Your task to perform on an android device: check the backup settings in the google photos Image 0: 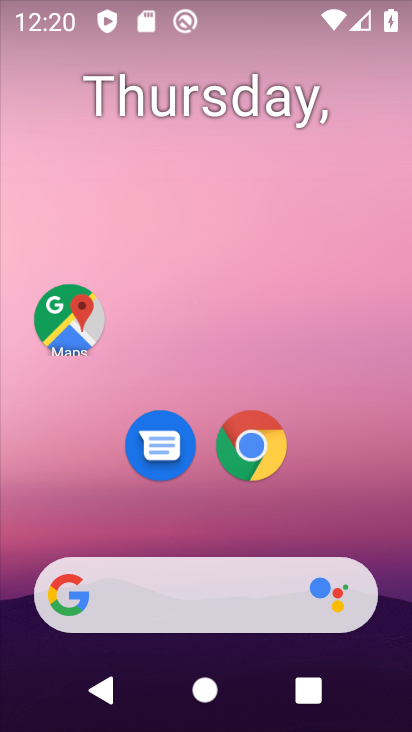
Step 0: drag from (358, 502) to (345, 124)
Your task to perform on an android device: check the backup settings in the google photos Image 1: 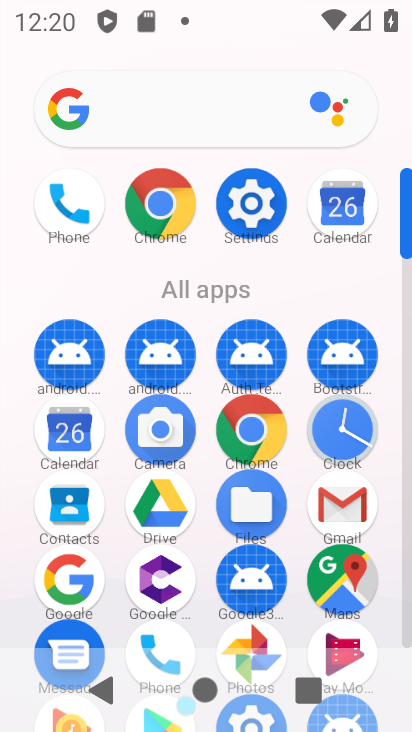
Step 1: click (256, 641)
Your task to perform on an android device: check the backup settings in the google photos Image 2: 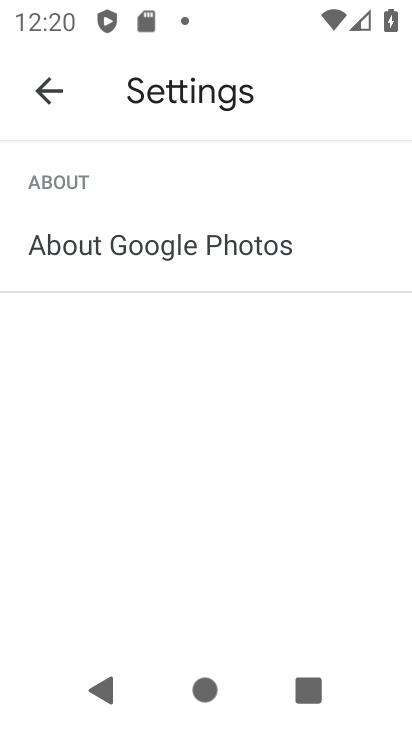
Step 2: click (54, 92)
Your task to perform on an android device: check the backup settings in the google photos Image 3: 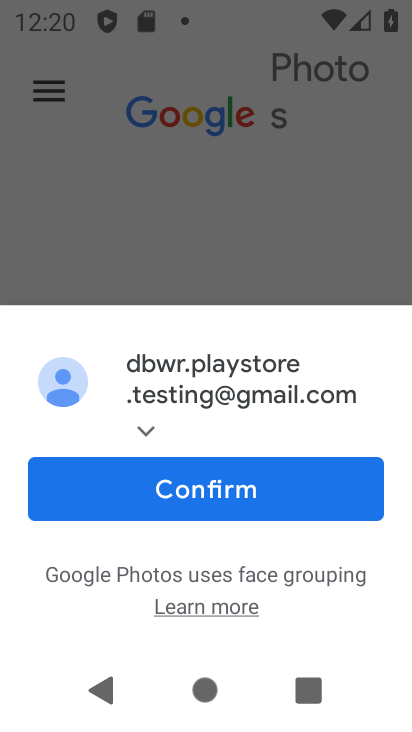
Step 3: click (71, 109)
Your task to perform on an android device: check the backup settings in the google photos Image 4: 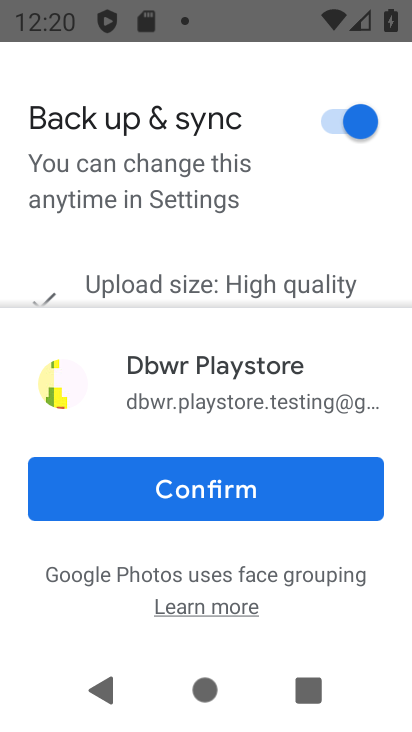
Step 4: click (202, 481)
Your task to perform on an android device: check the backup settings in the google photos Image 5: 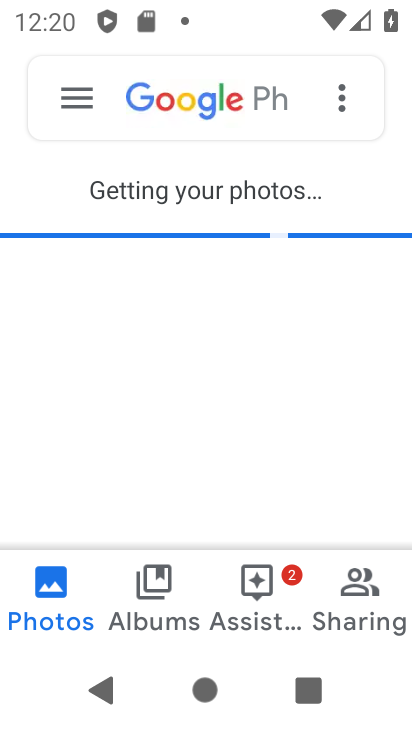
Step 5: click (74, 102)
Your task to perform on an android device: check the backup settings in the google photos Image 6: 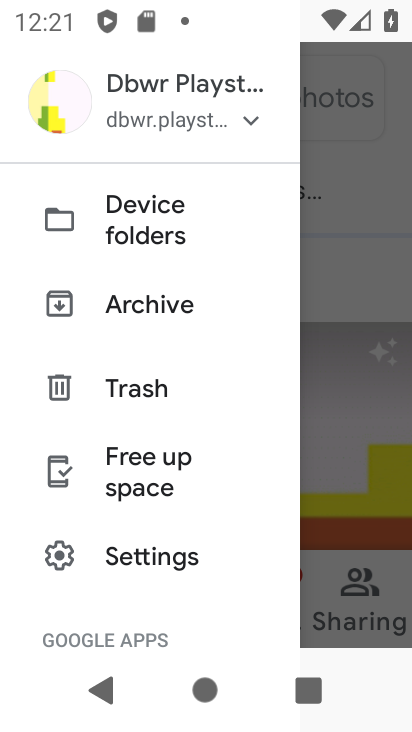
Step 6: click (165, 568)
Your task to perform on an android device: check the backup settings in the google photos Image 7: 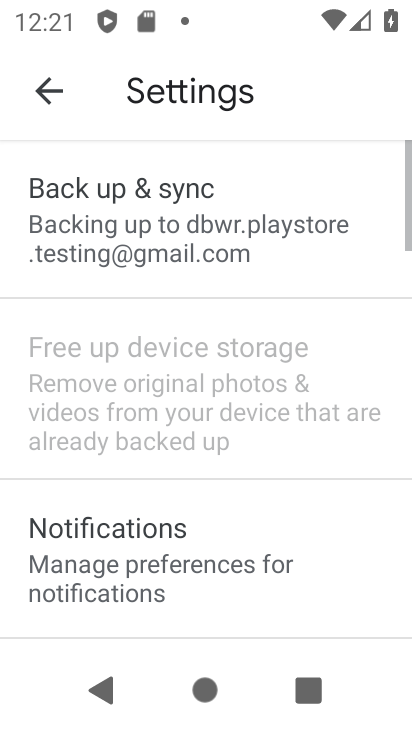
Step 7: click (198, 252)
Your task to perform on an android device: check the backup settings in the google photos Image 8: 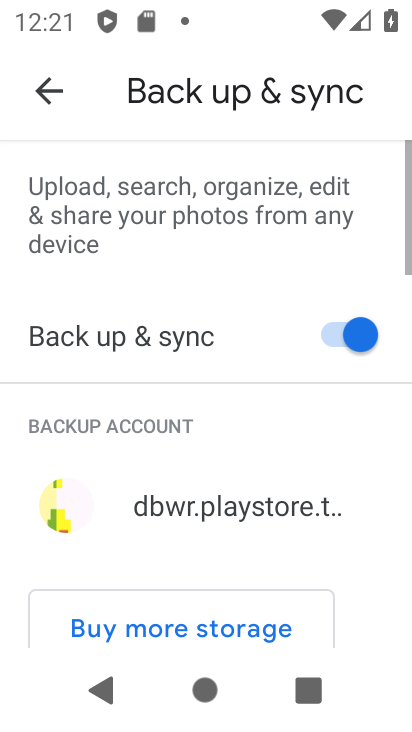
Step 8: task complete